Your task to perform on an android device: Go to accessibility settings Image 0: 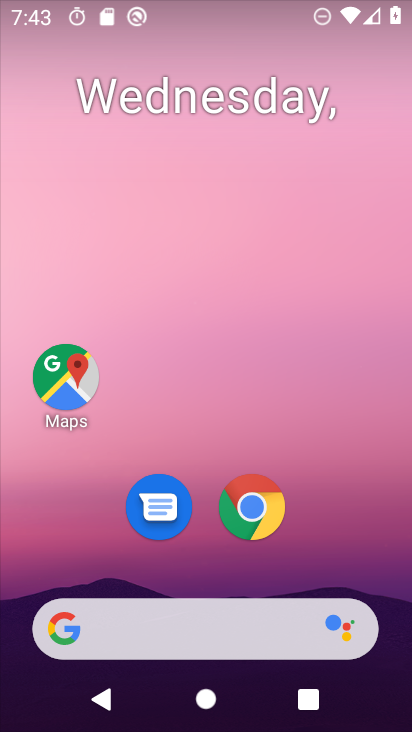
Step 0: drag from (294, 673) to (342, 108)
Your task to perform on an android device: Go to accessibility settings Image 1: 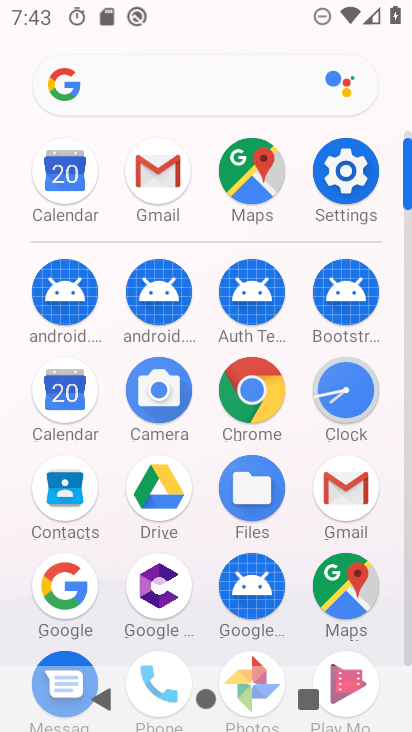
Step 1: click (356, 161)
Your task to perform on an android device: Go to accessibility settings Image 2: 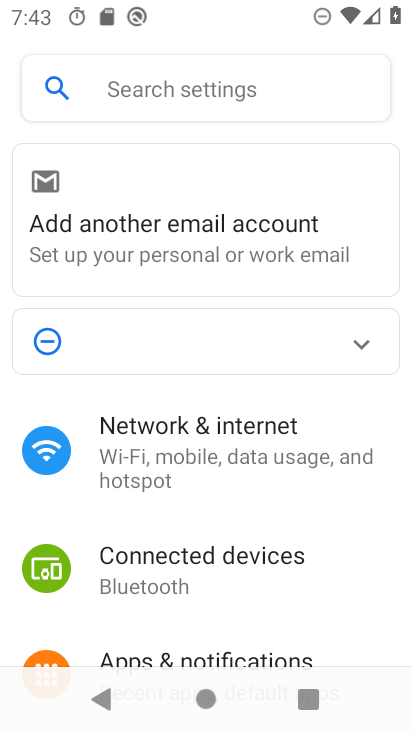
Step 2: click (196, 106)
Your task to perform on an android device: Go to accessibility settings Image 3: 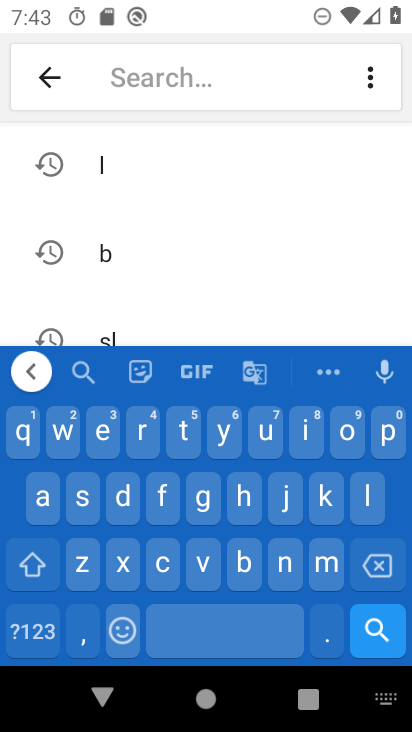
Step 3: click (45, 487)
Your task to perform on an android device: Go to accessibility settings Image 4: 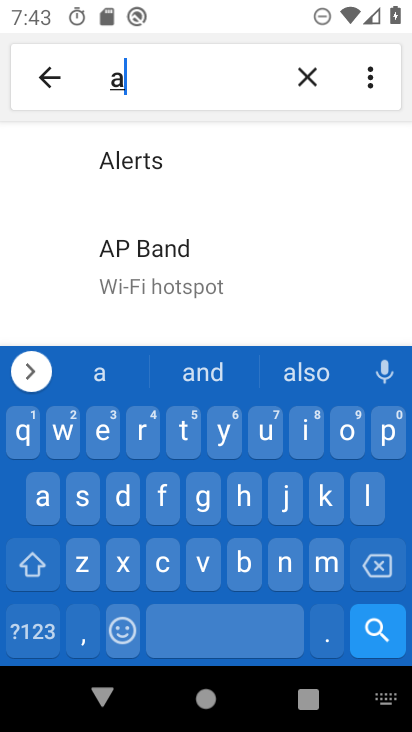
Step 4: click (165, 574)
Your task to perform on an android device: Go to accessibility settings Image 5: 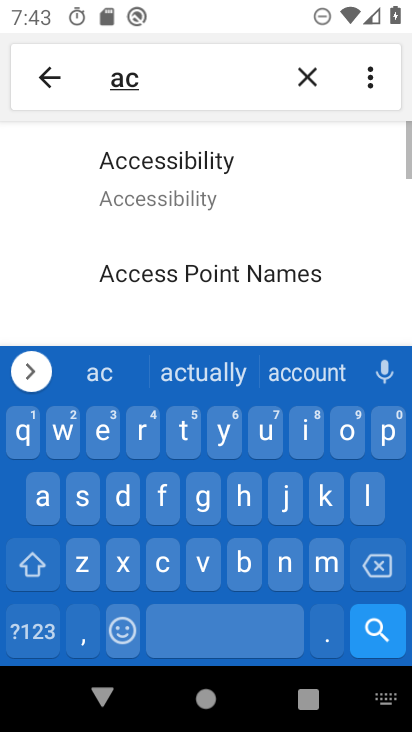
Step 5: click (176, 168)
Your task to perform on an android device: Go to accessibility settings Image 6: 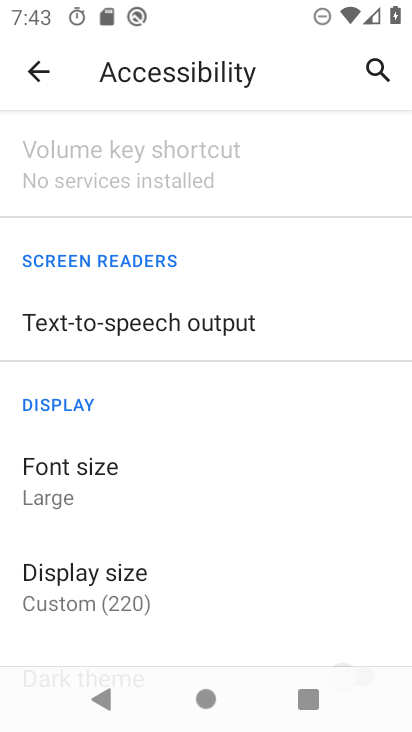
Step 6: task complete